Your task to perform on an android device: Open the calendar and show me this week's events Image 0: 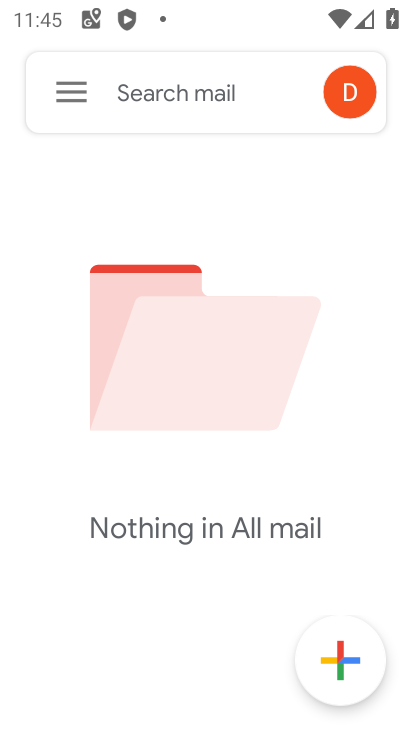
Step 0: press back button
Your task to perform on an android device: Open the calendar and show me this week's events Image 1: 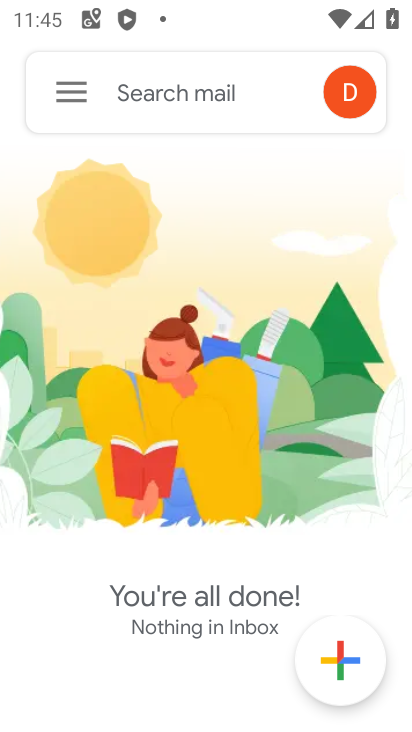
Step 1: press home button
Your task to perform on an android device: Open the calendar and show me this week's events Image 2: 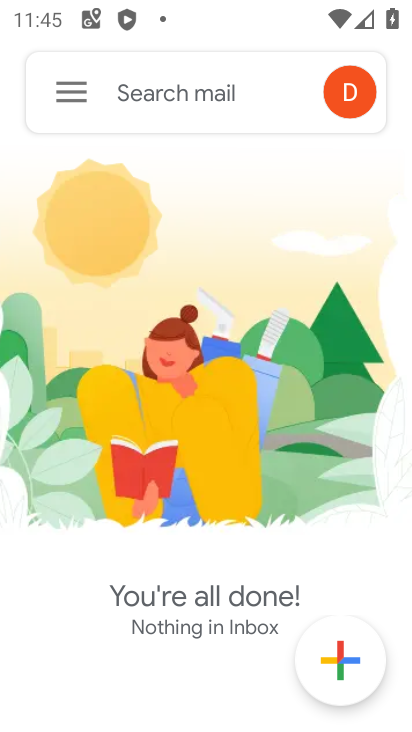
Step 2: press home button
Your task to perform on an android device: Open the calendar and show me this week's events Image 3: 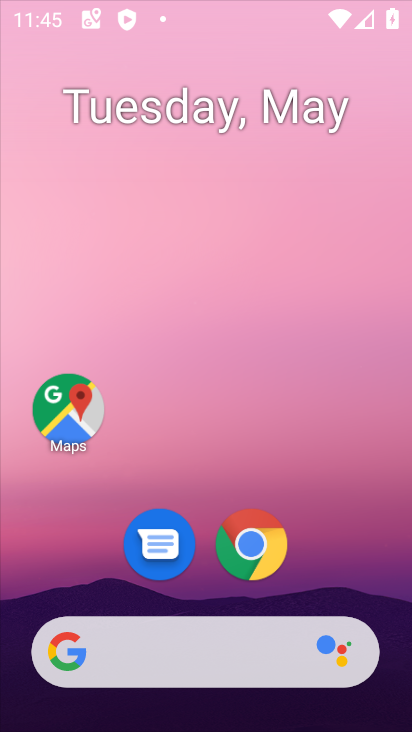
Step 3: press home button
Your task to perform on an android device: Open the calendar and show me this week's events Image 4: 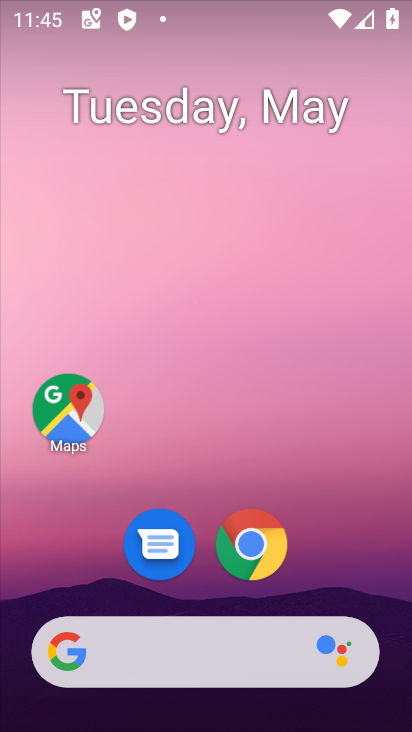
Step 4: drag from (363, 651) to (214, 125)
Your task to perform on an android device: Open the calendar and show me this week's events Image 5: 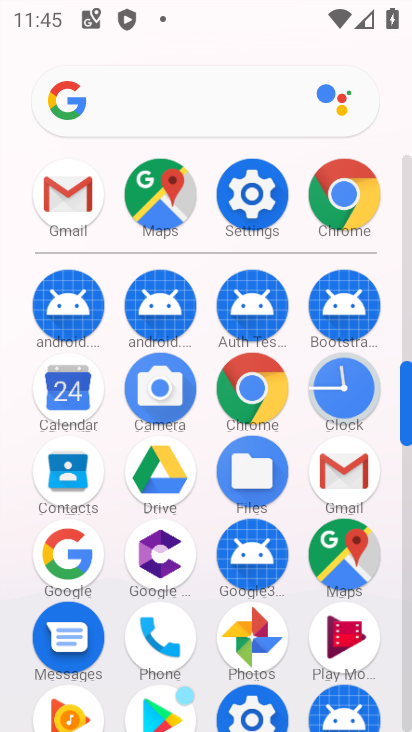
Step 5: click (72, 385)
Your task to perform on an android device: Open the calendar and show me this week's events Image 6: 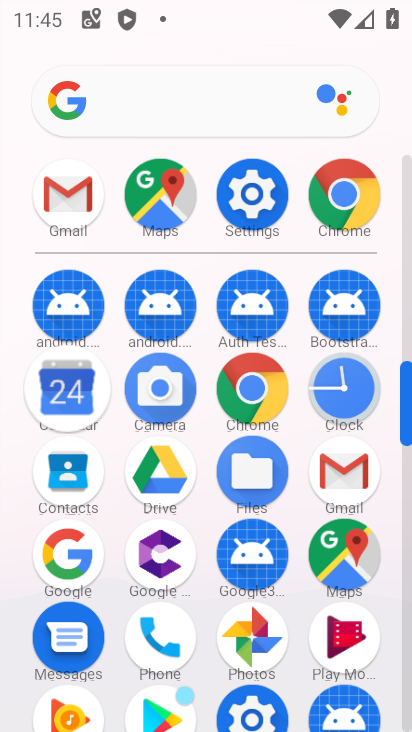
Step 6: click (73, 384)
Your task to perform on an android device: Open the calendar and show me this week's events Image 7: 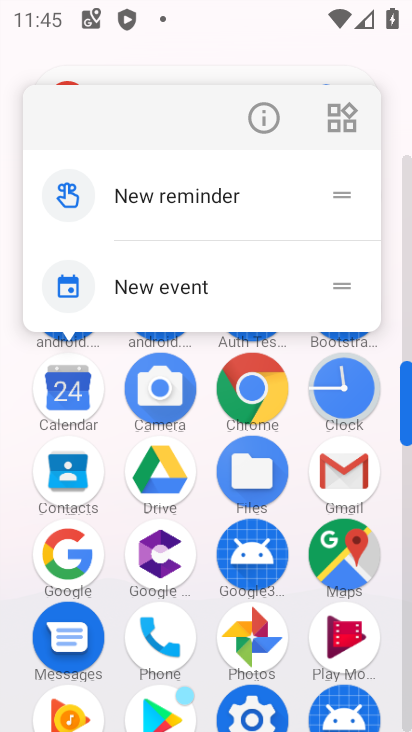
Step 7: click (74, 383)
Your task to perform on an android device: Open the calendar and show me this week's events Image 8: 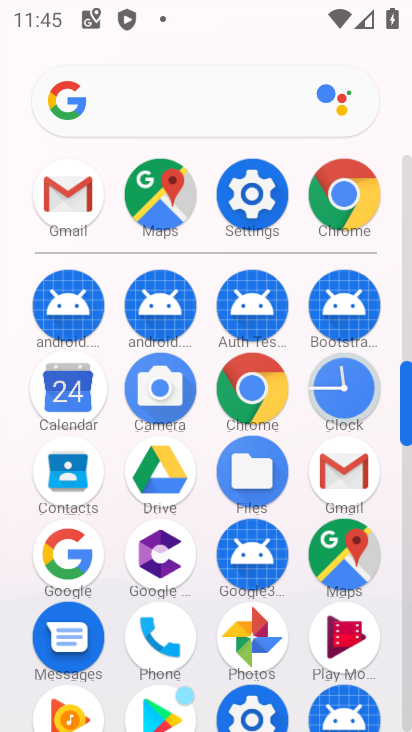
Step 8: click (74, 383)
Your task to perform on an android device: Open the calendar and show me this week's events Image 9: 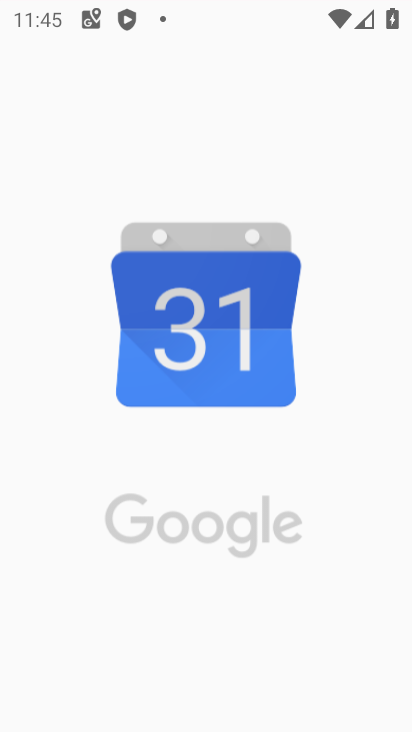
Step 9: click (74, 383)
Your task to perform on an android device: Open the calendar and show me this week's events Image 10: 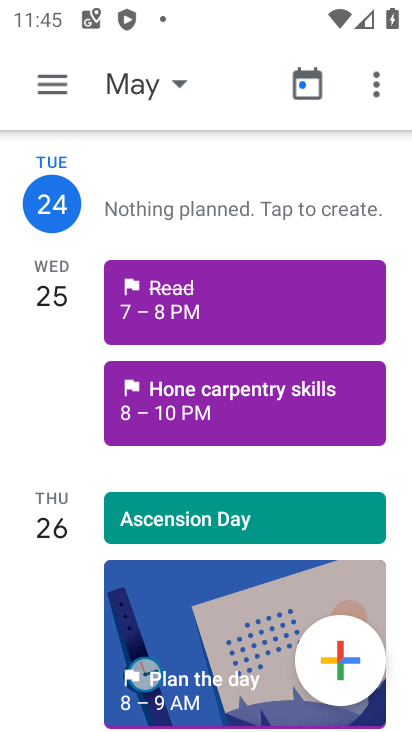
Step 10: click (149, 295)
Your task to perform on an android device: Open the calendar and show me this week's events Image 11: 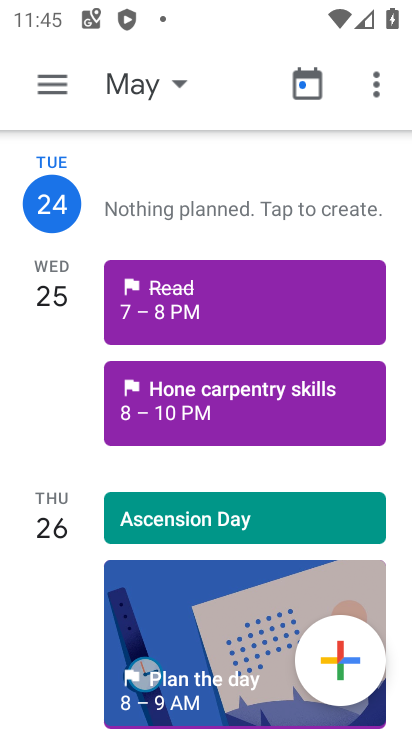
Step 11: click (154, 299)
Your task to perform on an android device: Open the calendar and show me this week's events Image 12: 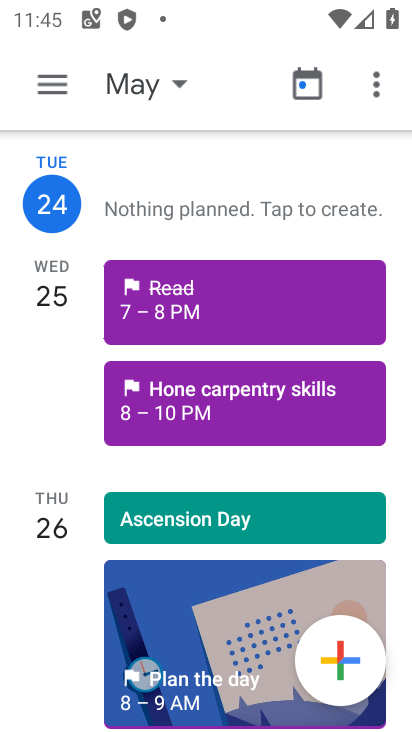
Step 12: click (160, 299)
Your task to perform on an android device: Open the calendar and show me this week's events Image 13: 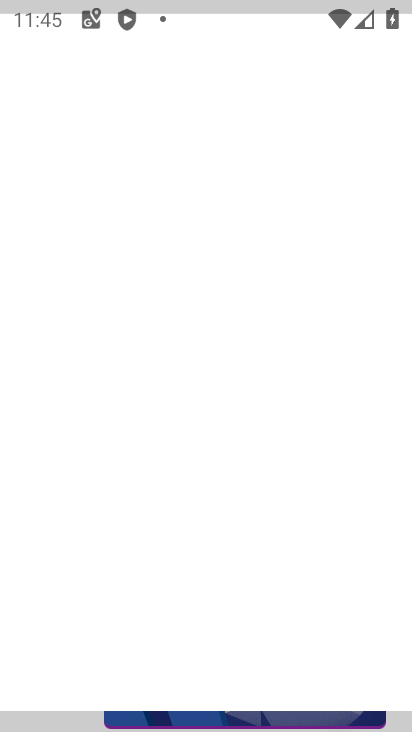
Step 13: click (174, 294)
Your task to perform on an android device: Open the calendar and show me this week's events Image 14: 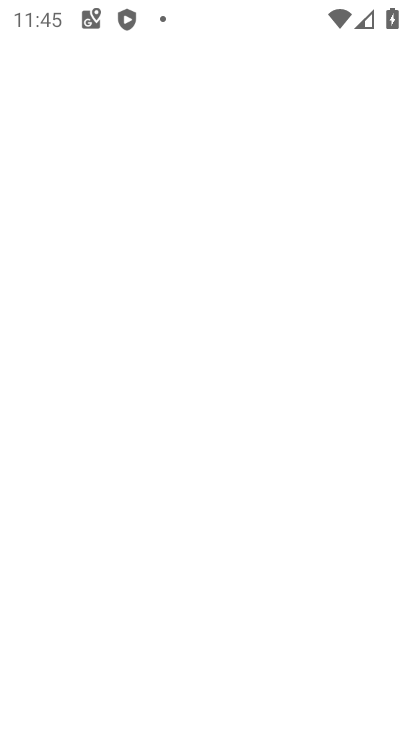
Step 14: click (174, 294)
Your task to perform on an android device: Open the calendar and show me this week's events Image 15: 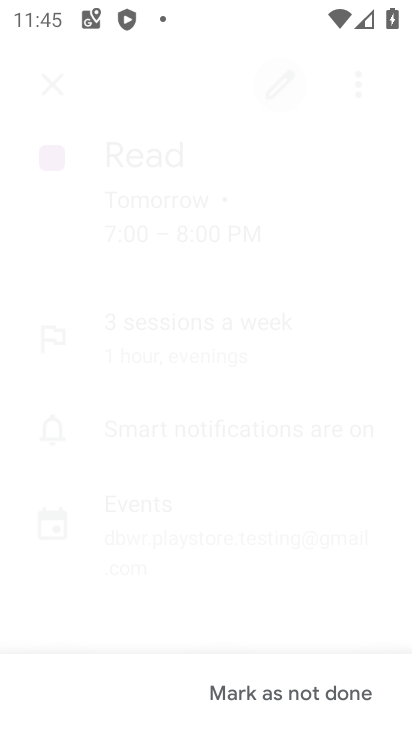
Step 15: click (174, 293)
Your task to perform on an android device: Open the calendar and show me this week's events Image 16: 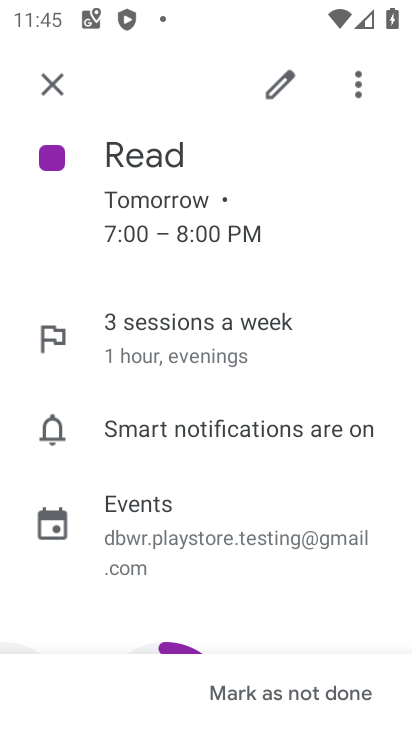
Step 16: task complete